Your task to perform on an android device: install app "Google Calendar" Image 0: 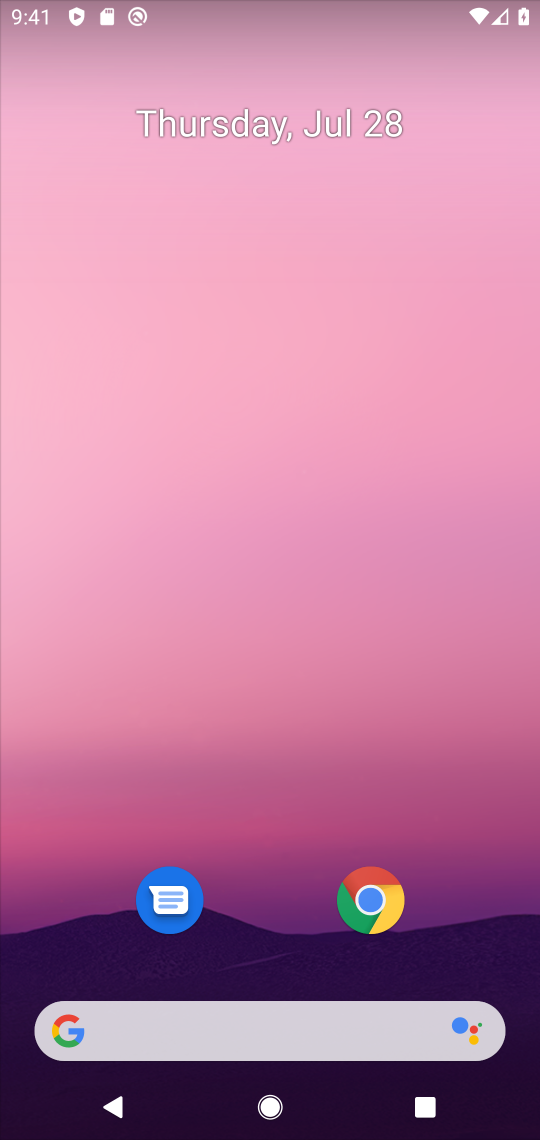
Step 0: drag from (256, 908) to (309, 292)
Your task to perform on an android device: install app "Google Calendar" Image 1: 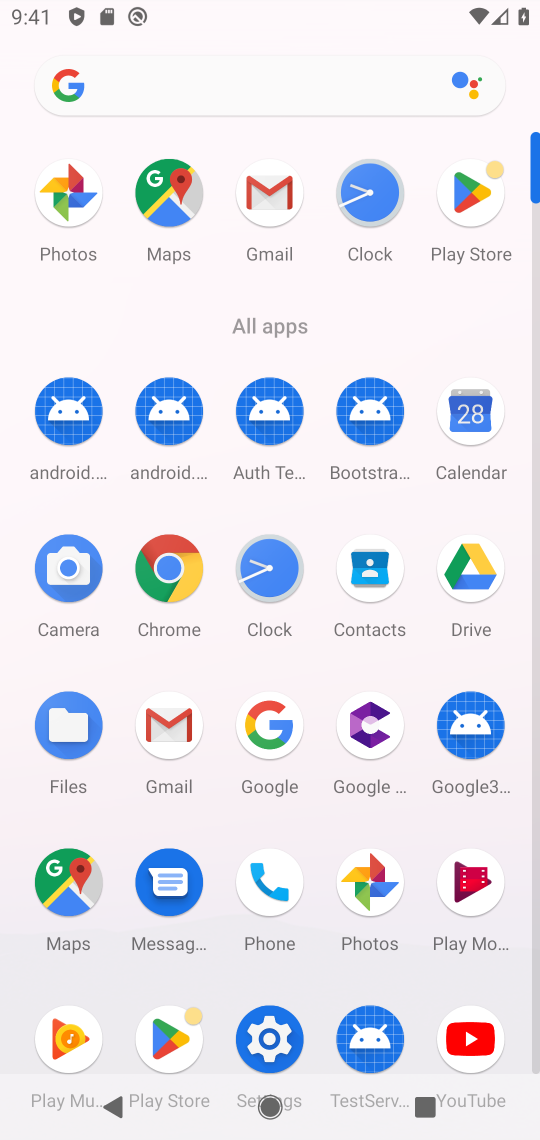
Step 1: task complete